Your task to perform on an android device: turn off improve location accuracy Image 0: 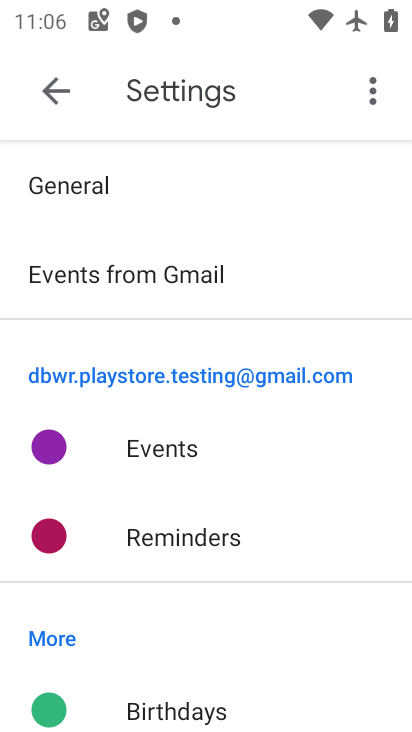
Step 0: press home button
Your task to perform on an android device: turn off improve location accuracy Image 1: 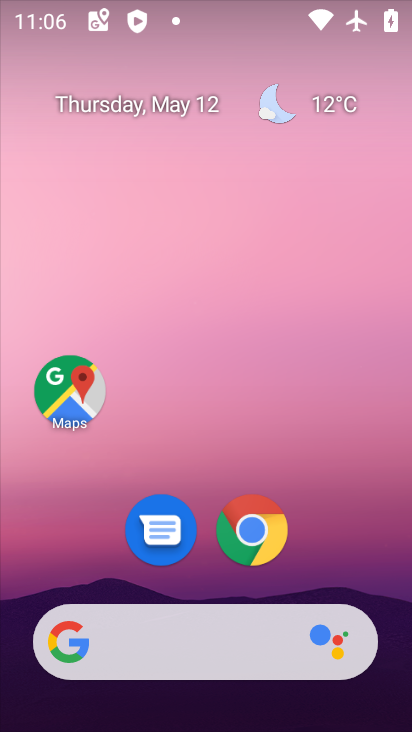
Step 1: drag from (150, 652) to (322, 140)
Your task to perform on an android device: turn off improve location accuracy Image 2: 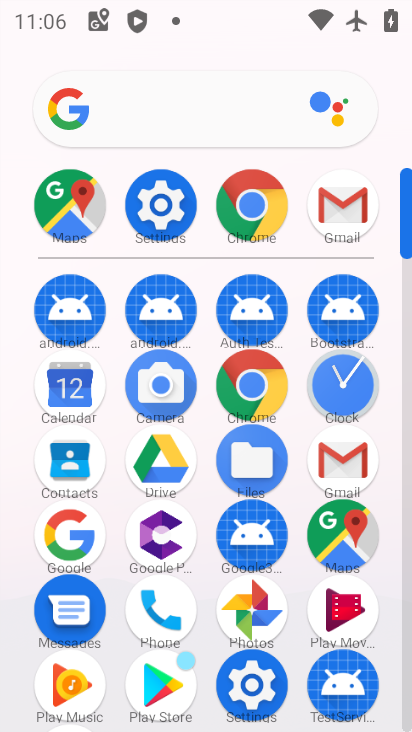
Step 2: click (160, 210)
Your task to perform on an android device: turn off improve location accuracy Image 3: 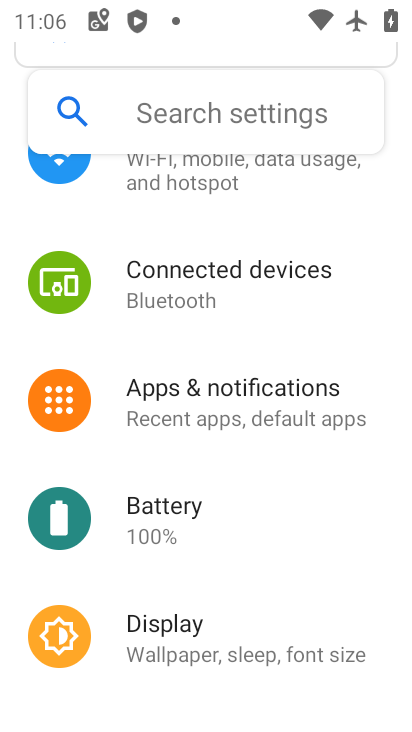
Step 3: drag from (229, 596) to (342, 146)
Your task to perform on an android device: turn off improve location accuracy Image 4: 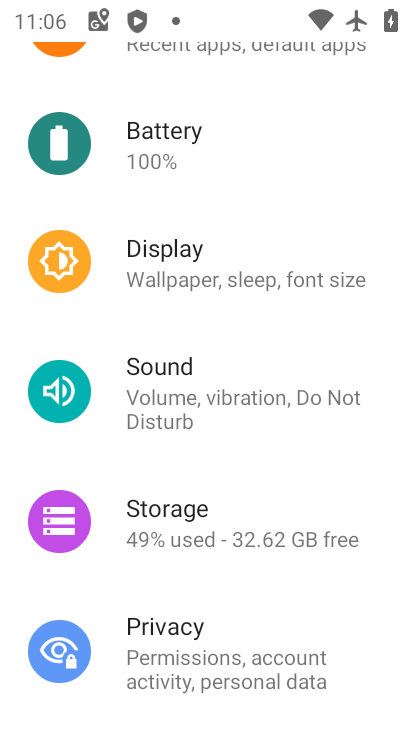
Step 4: drag from (173, 605) to (368, 217)
Your task to perform on an android device: turn off improve location accuracy Image 5: 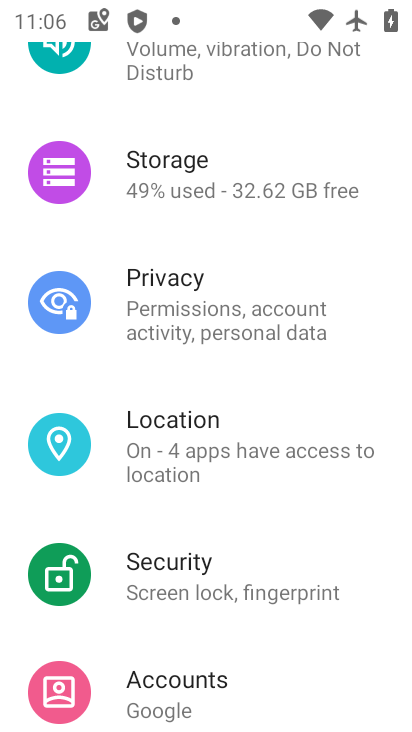
Step 5: click (175, 435)
Your task to perform on an android device: turn off improve location accuracy Image 6: 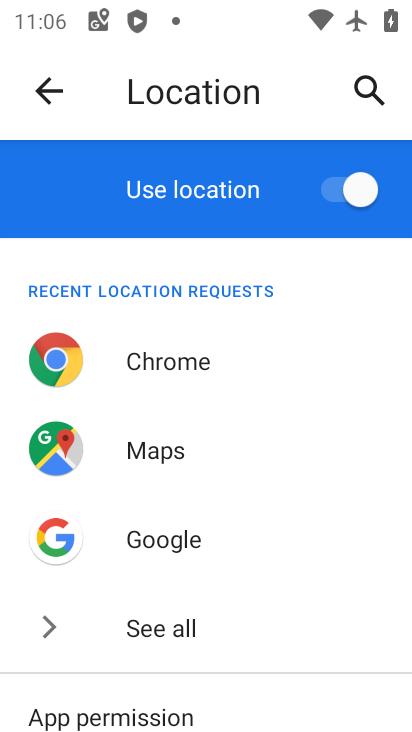
Step 6: drag from (237, 663) to (340, 204)
Your task to perform on an android device: turn off improve location accuracy Image 7: 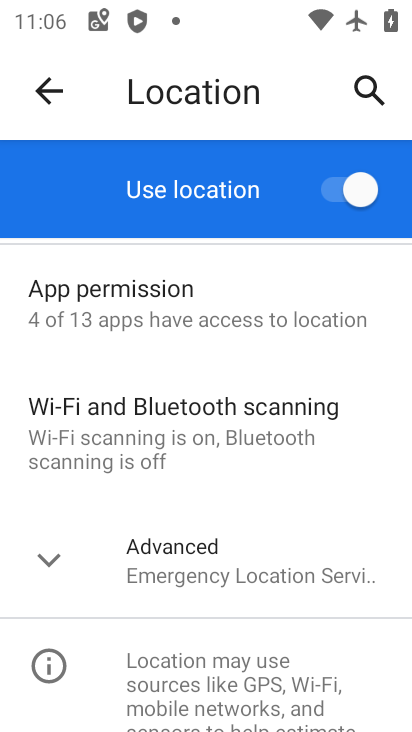
Step 7: click (166, 556)
Your task to perform on an android device: turn off improve location accuracy Image 8: 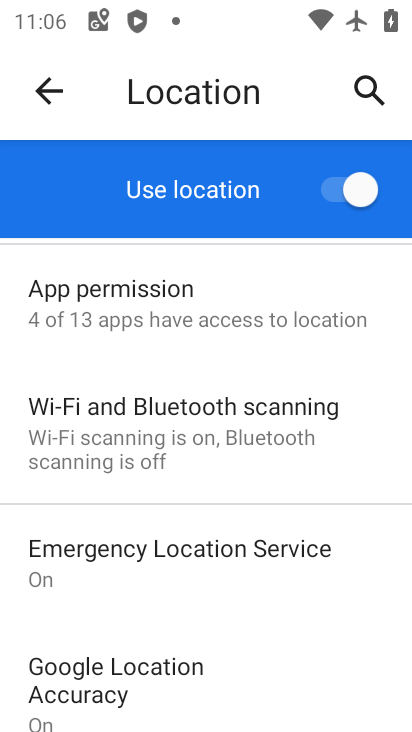
Step 8: drag from (206, 635) to (325, 305)
Your task to perform on an android device: turn off improve location accuracy Image 9: 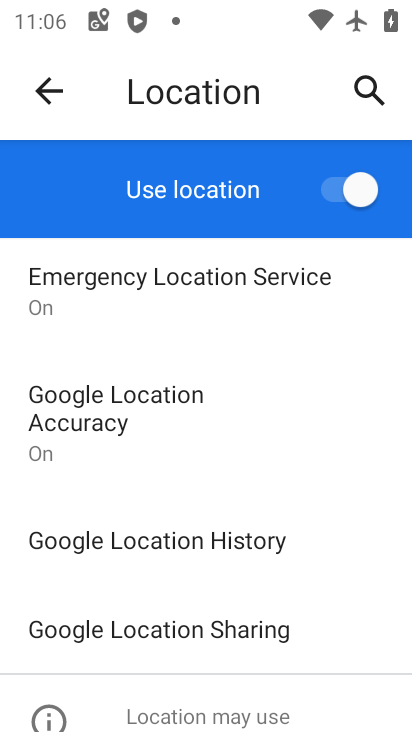
Step 9: click (127, 403)
Your task to perform on an android device: turn off improve location accuracy Image 10: 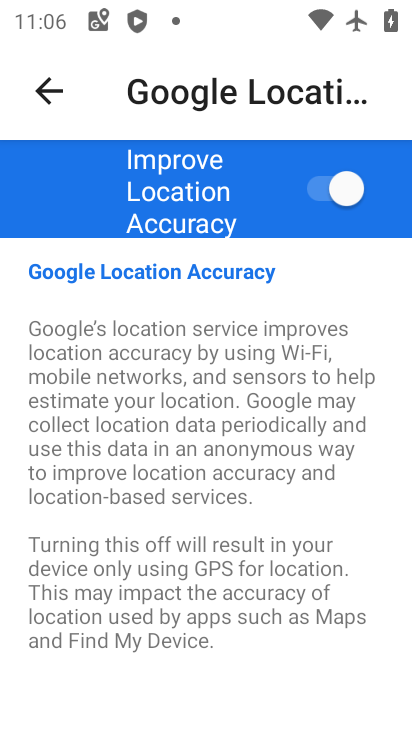
Step 10: click (324, 184)
Your task to perform on an android device: turn off improve location accuracy Image 11: 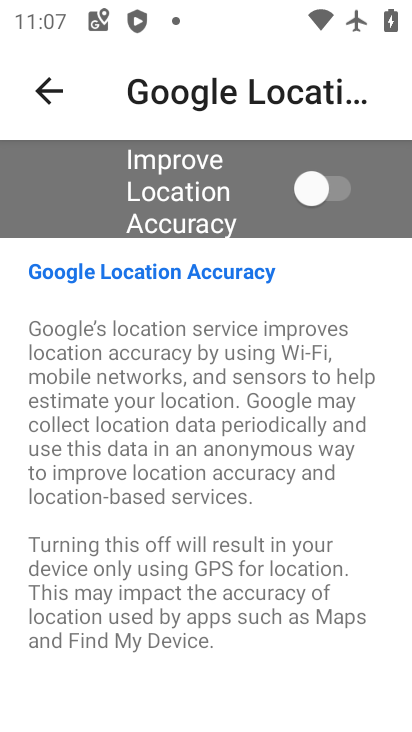
Step 11: task complete